Your task to perform on an android device: Go to Google maps Image 0: 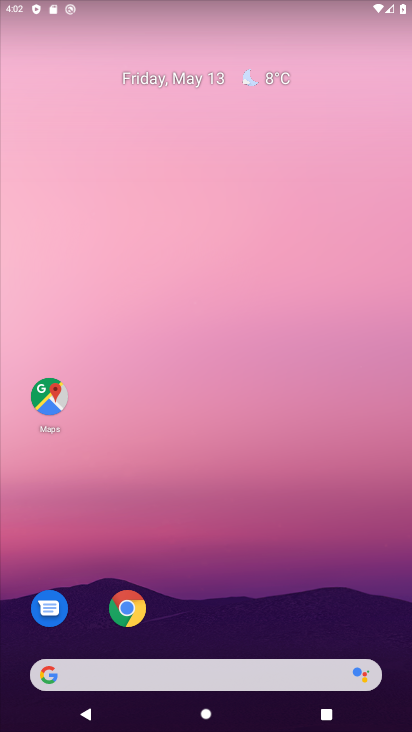
Step 0: click (54, 399)
Your task to perform on an android device: Go to Google maps Image 1: 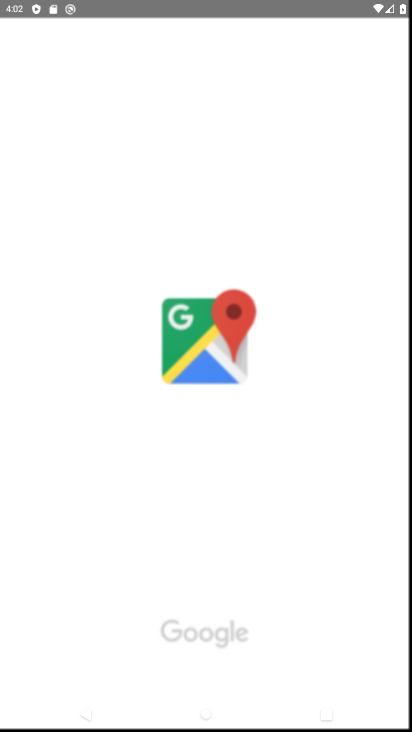
Step 1: task complete